Your task to perform on an android device: find which apps use the phone's location Image 0: 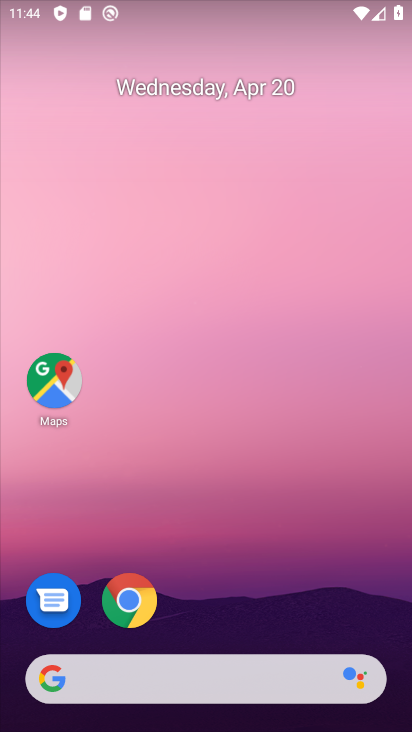
Step 0: drag from (310, 591) to (355, 36)
Your task to perform on an android device: find which apps use the phone's location Image 1: 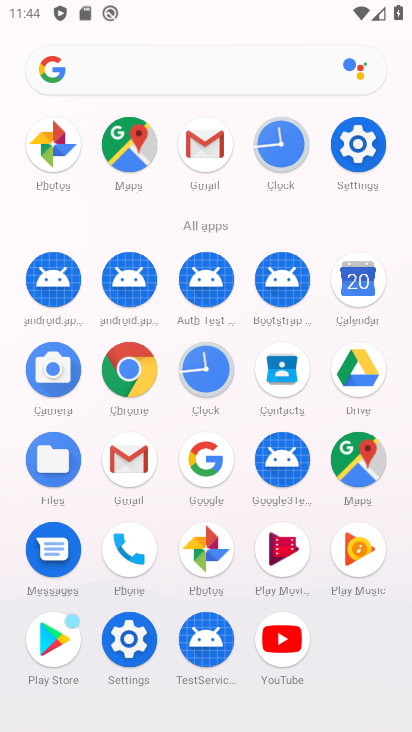
Step 1: click (366, 153)
Your task to perform on an android device: find which apps use the phone's location Image 2: 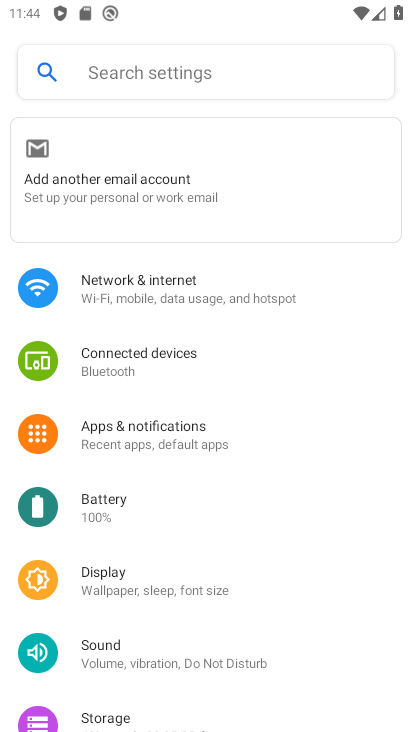
Step 2: drag from (247, 631) to (226, 192)
Your task to perform on an android device: find which apps use the phone's location Image 3: 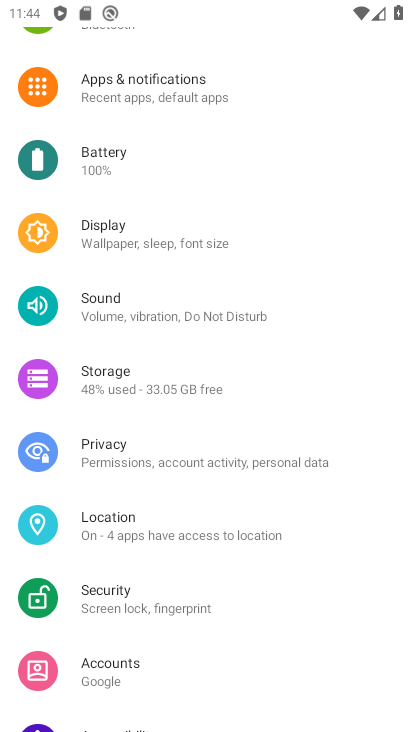
Step 3: click (200, 531)
Your task to perform on an android device: find which apps use the phone's location Image 4: 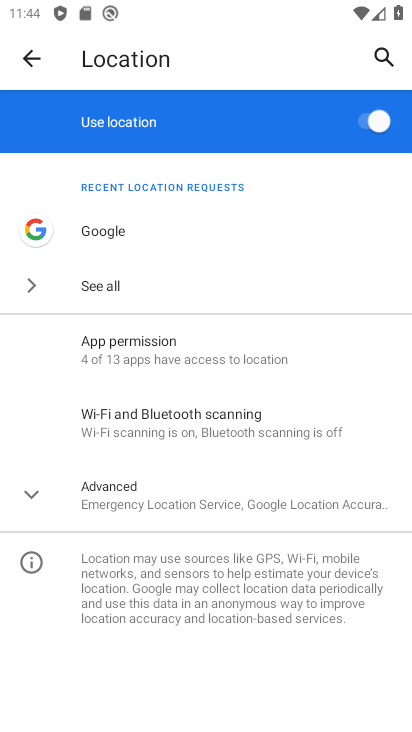
Step 4: click (198, 345)
Your task to perform on an android device: find which apps use the phone's location Image 5: 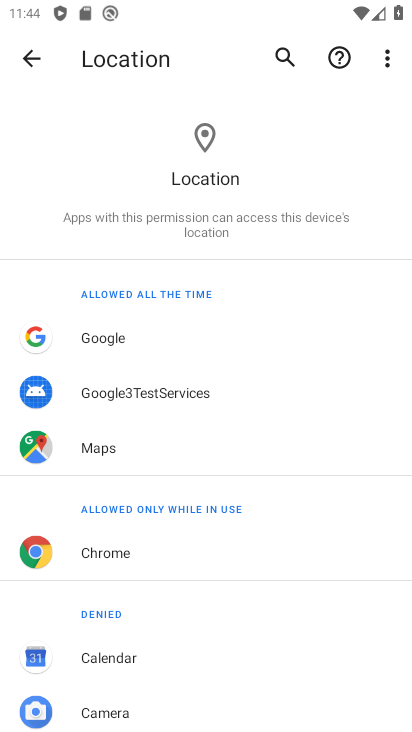
Step 5: task complete